Your task to perform on an android device: turn on notifications settings in the gmail app Image 0: 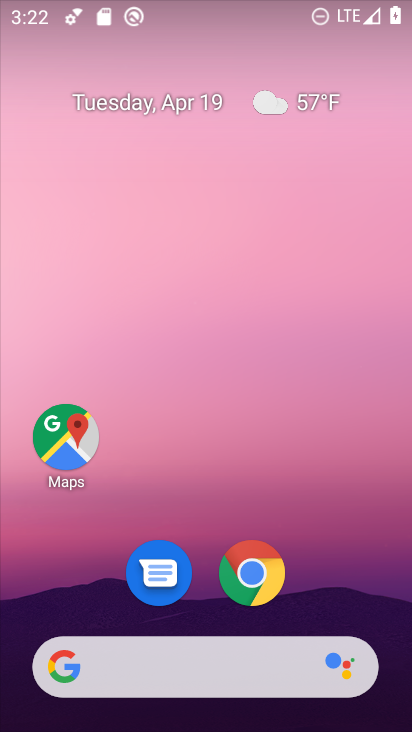
Step 0: drag from (374, 617) to (377, 15)
Your task to perform on an android device: turn on notifications settings in the gmail app Image 1: 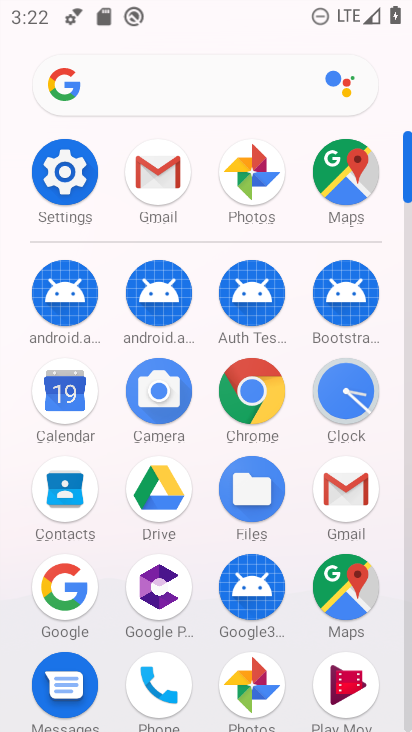
Step 1: click (158, 172)
Your task to perform on an android device: turn on notifications settings in the gmail app Image 2: 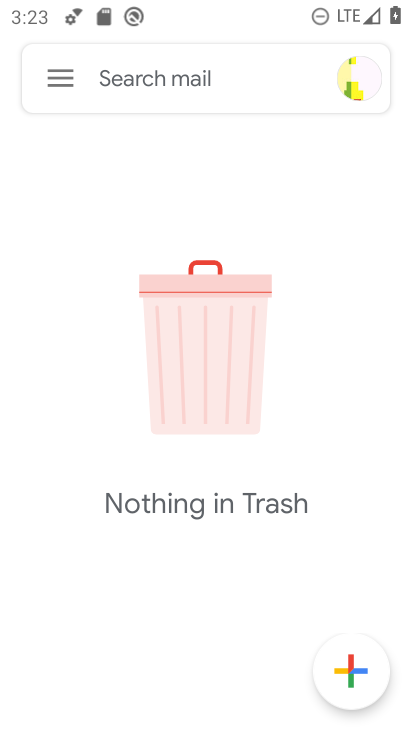
Step 2: click (65, 83)
Your task to perform on an android device: turn on notifications settings in the gmail app Image 3: 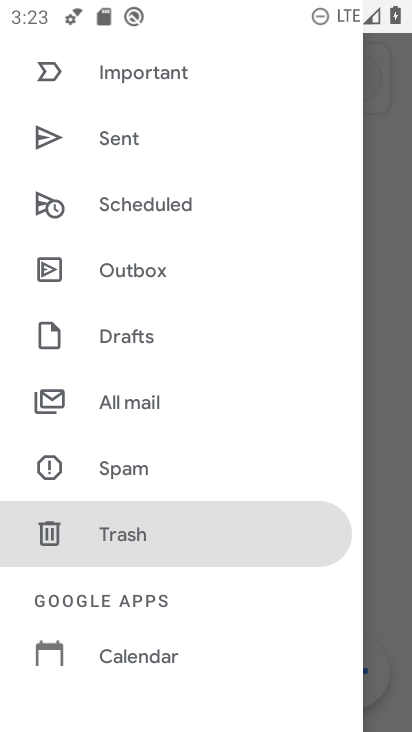
Step 3: drag from (208, 640) to (225, 248)
Your task to perform on an android device: turn on notifications settings in the gmail app Image 4: 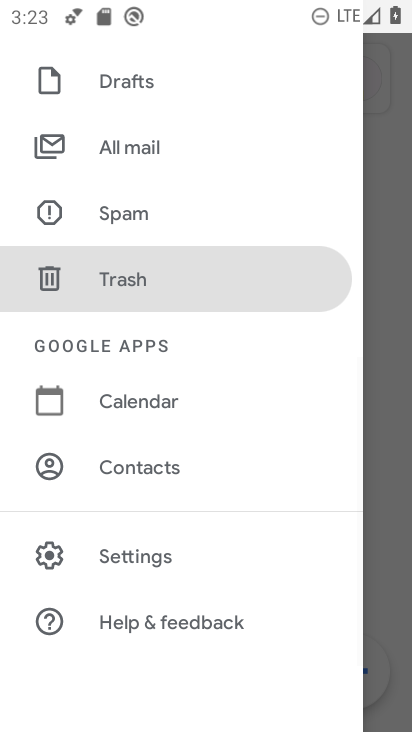
Step 4: click (131, 556)
Your task to perform on an android device: turn on notifications settings in the gmail app Image 5: 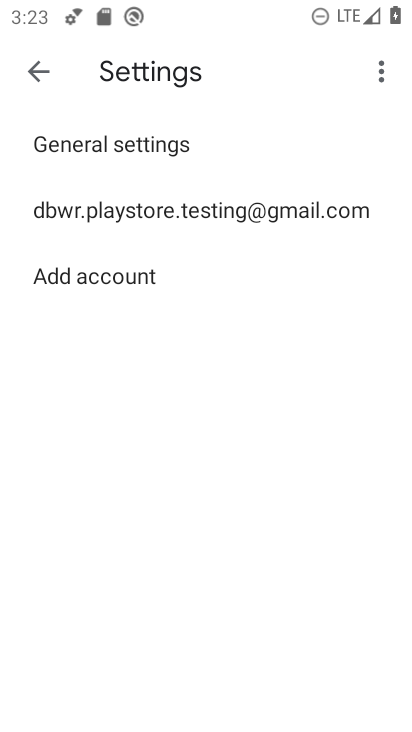
Step 5: click (100, 152)
Your task to perform on an android device: turn on notifications settings in the gmail app Image 6: 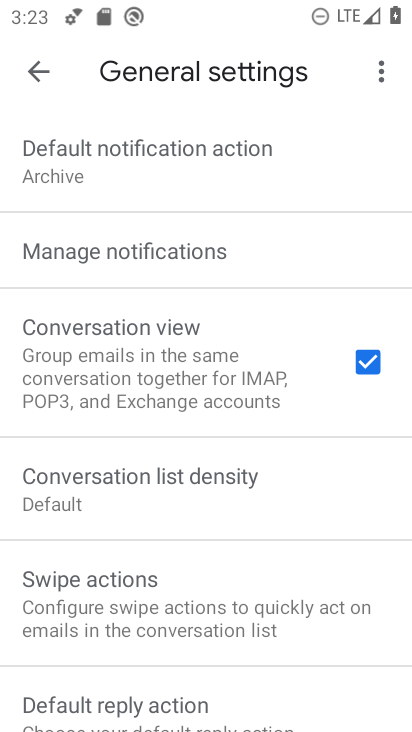
Step 6: click (124, 258)
Your task to perform on an android device: turn on notifications settings in the gmail app Image 7: 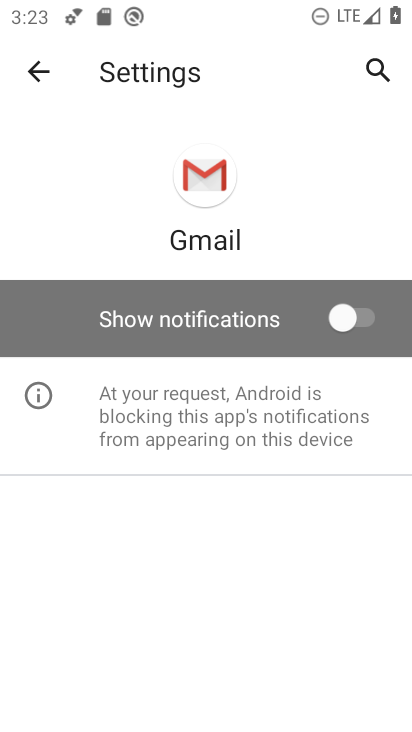
Step 7: click (331, 309)
Your task to perform on an android device: turn on notifications settings in the gmail app Image 8: 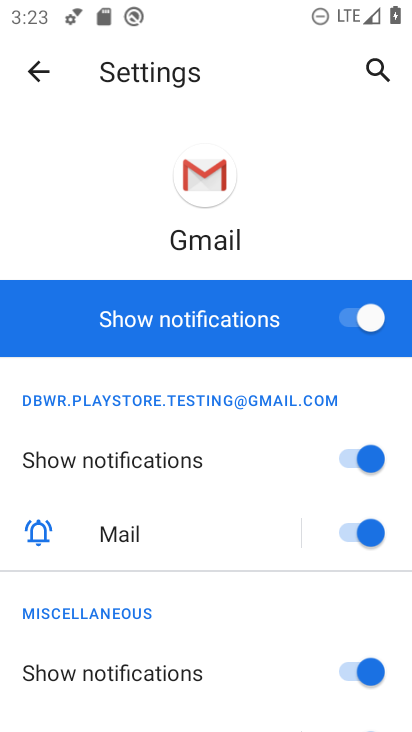
Step 8: task complete